Your task to perform on an android device: change timer sound Image 0: 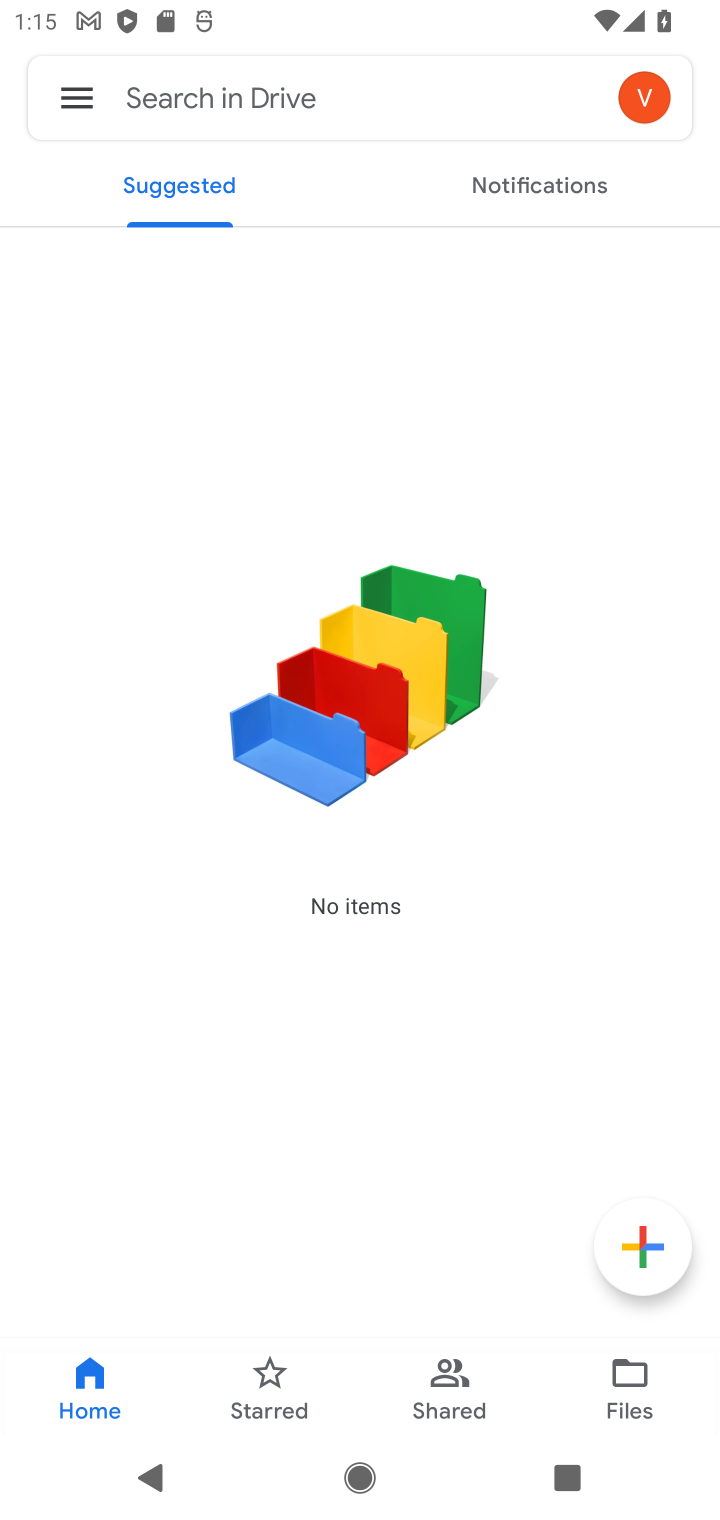
Step 0: press home button
Your task to perform on an android device: change timer sound Image 1: 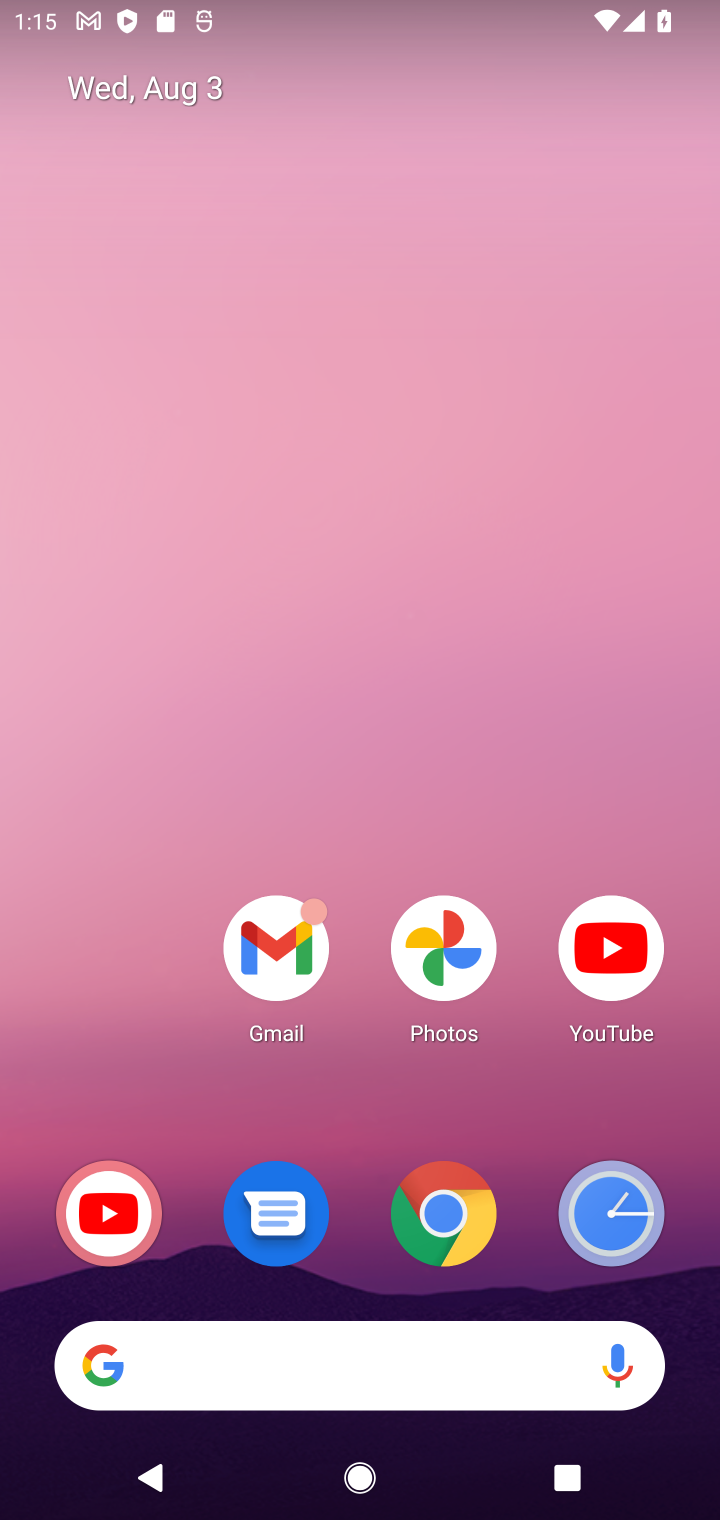
Step 1: drag from (294, 1311) to (626, 16)
Your task to perform on an android device: change timer sound Image 2: 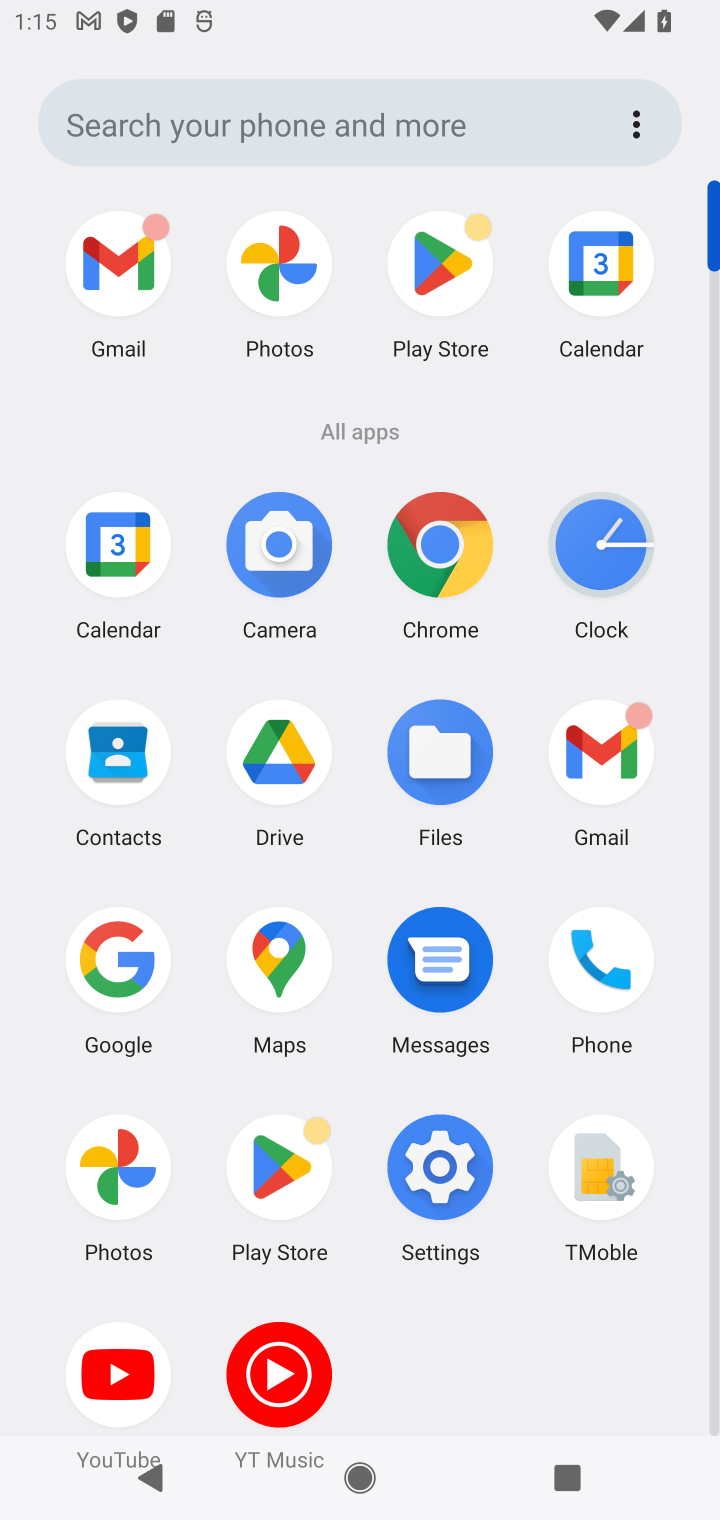
Step 2: click (589, 568)
Your task to perform on an android device: change timer sound Image 3: 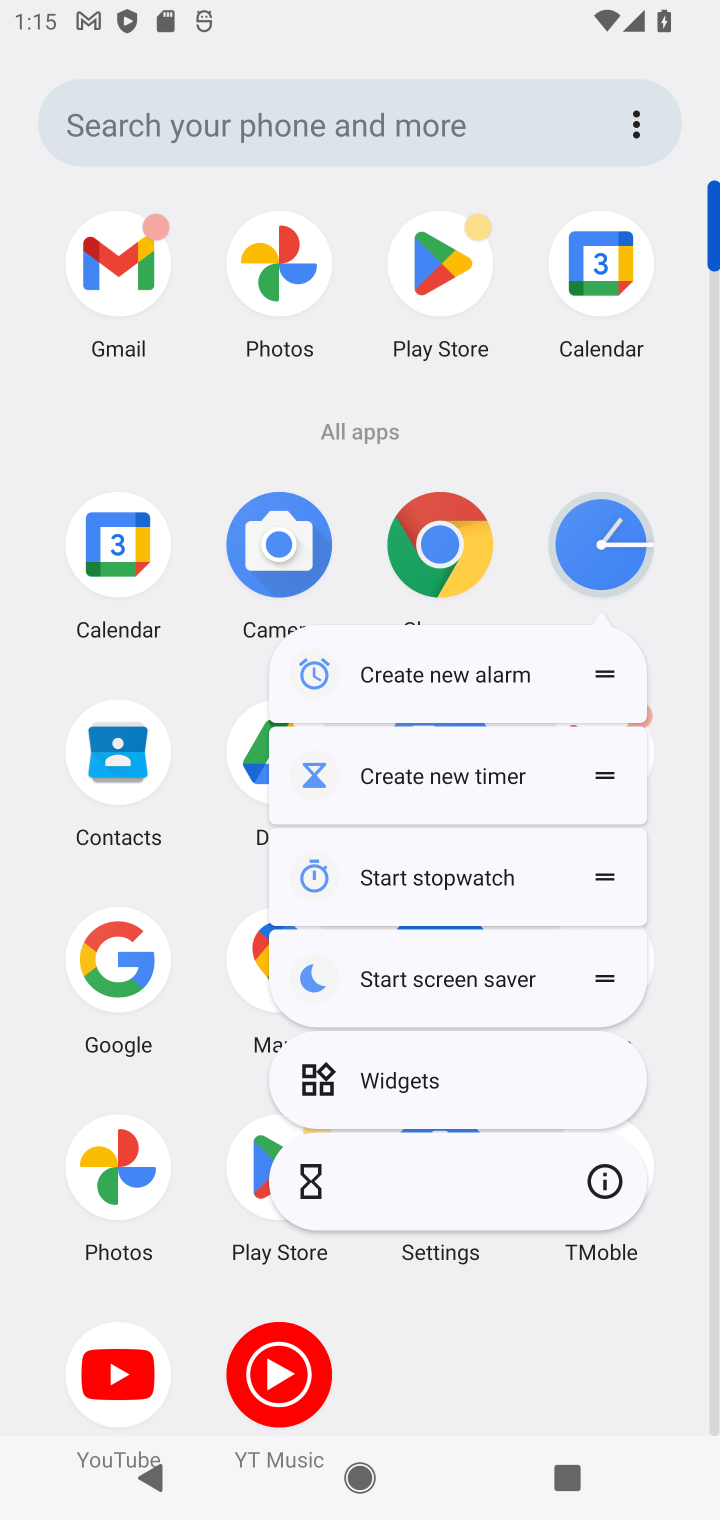
Step 3: click (576, 544)
Your task to perform on an android device: change timer sound Image 4: 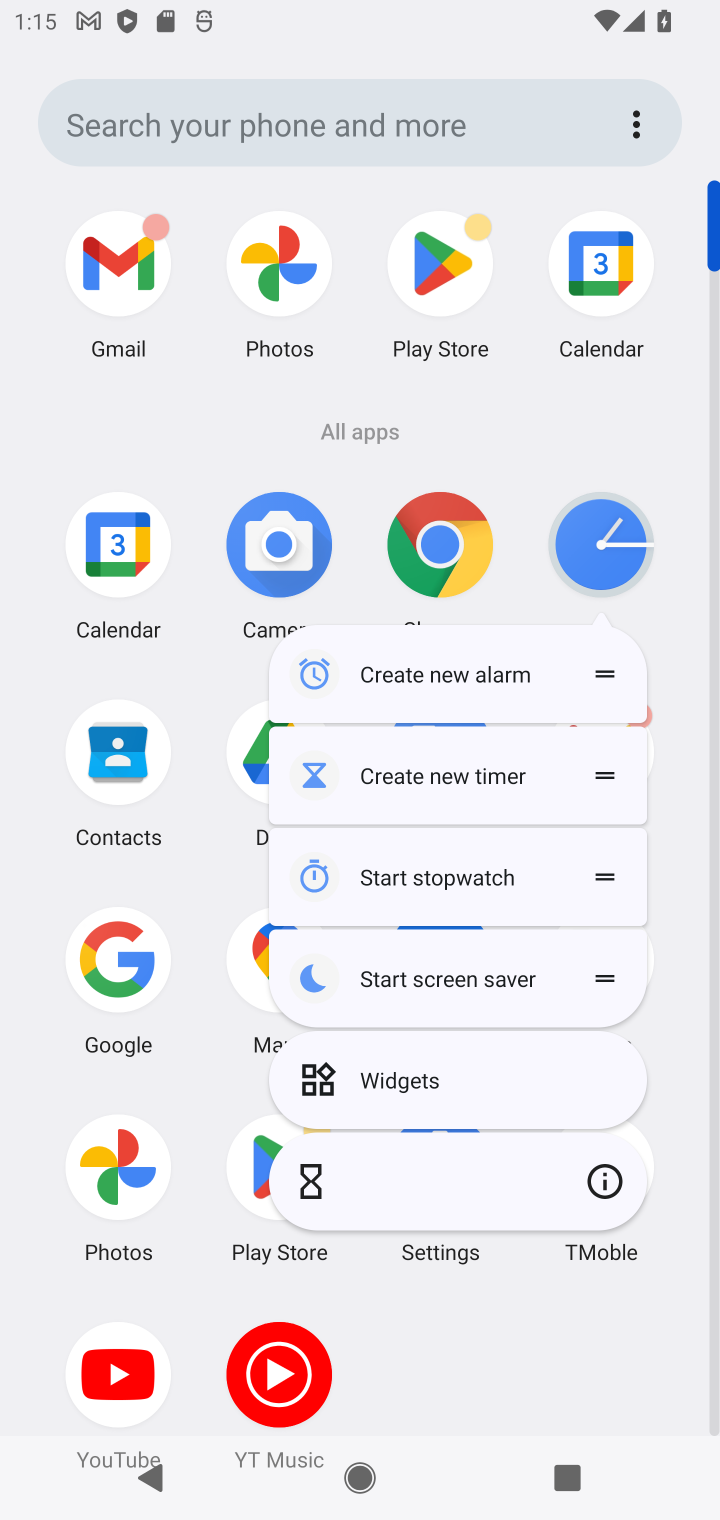
Step 4: click (598, 517)
Your task to perform on an android device: change timer sound Image 5: 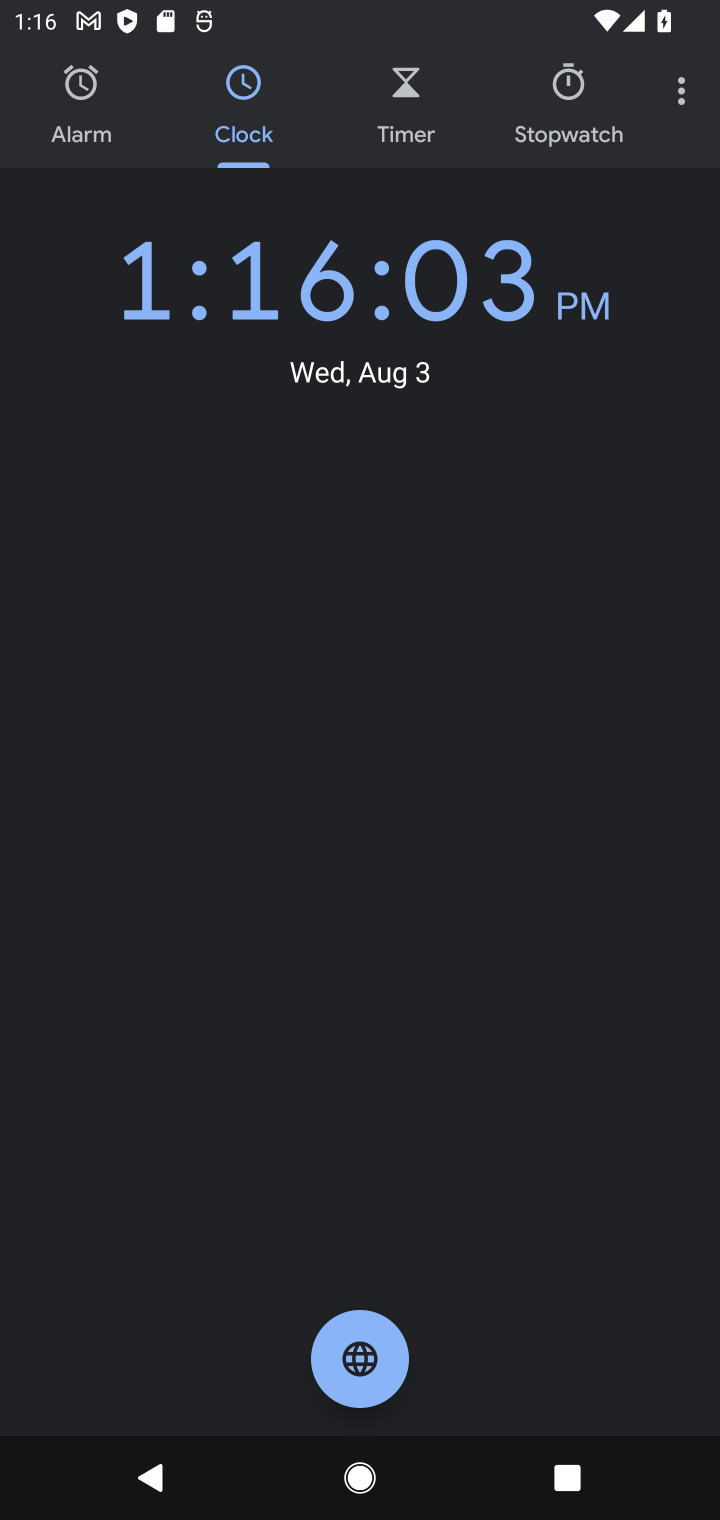
Step 5: click (407, 93)
Your task to perform on an android device: change timer sound Image 6: 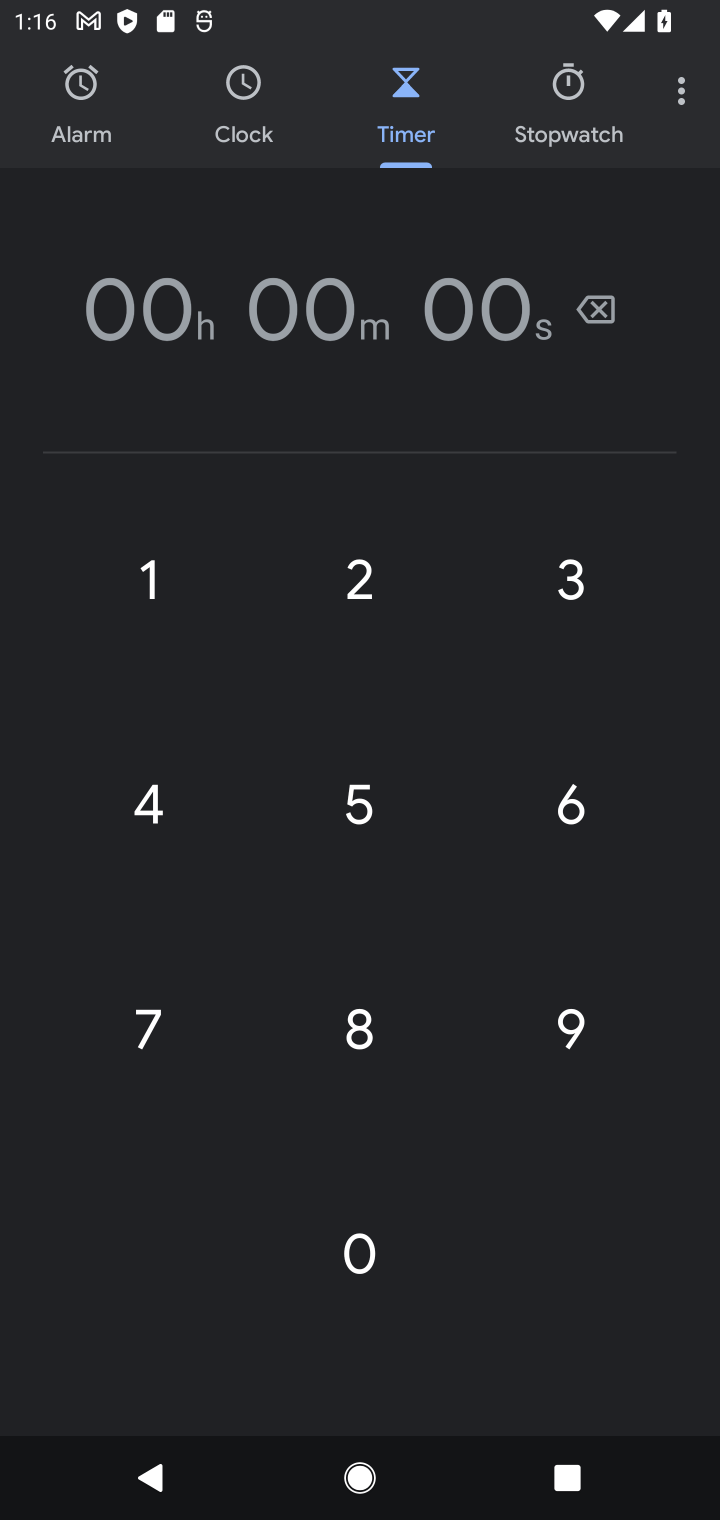
Step 6: click (364, 1021)
Your task to perform on an android device: change timer sound Image 7: 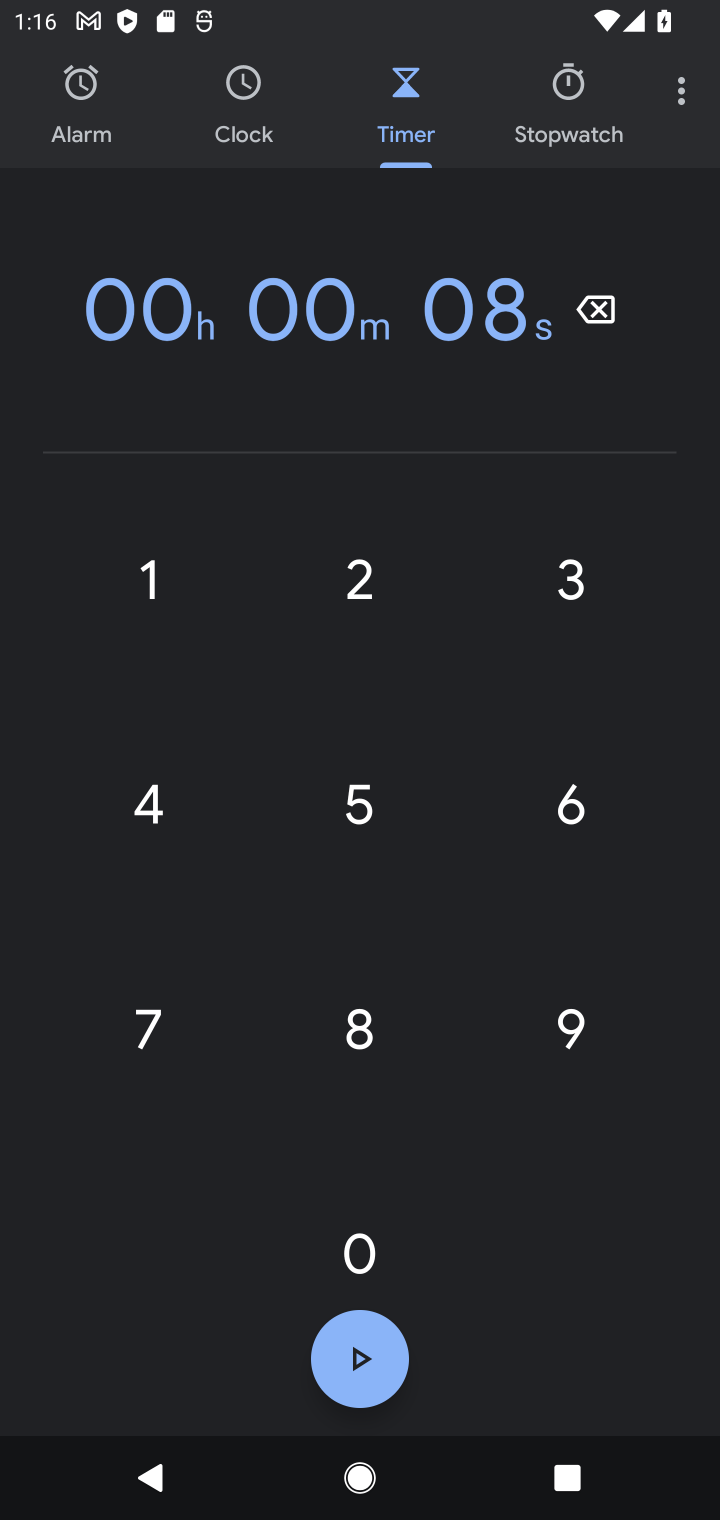
Step 7: click (576, 1035)
Your task to perform on an android device: change timer sound Image 8: 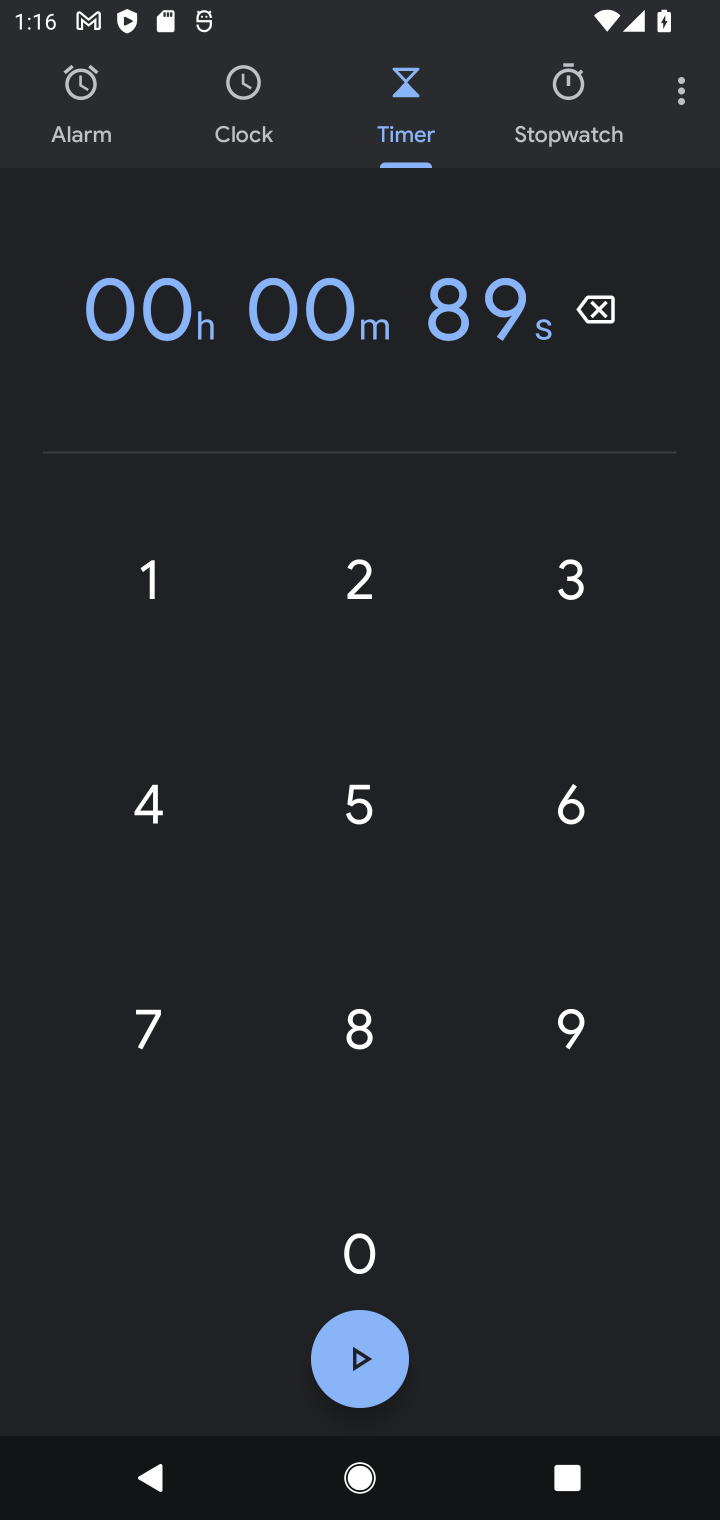
Step 8: click (366, 1374)
Your task to perform on an android device: change timer sound Image 9: 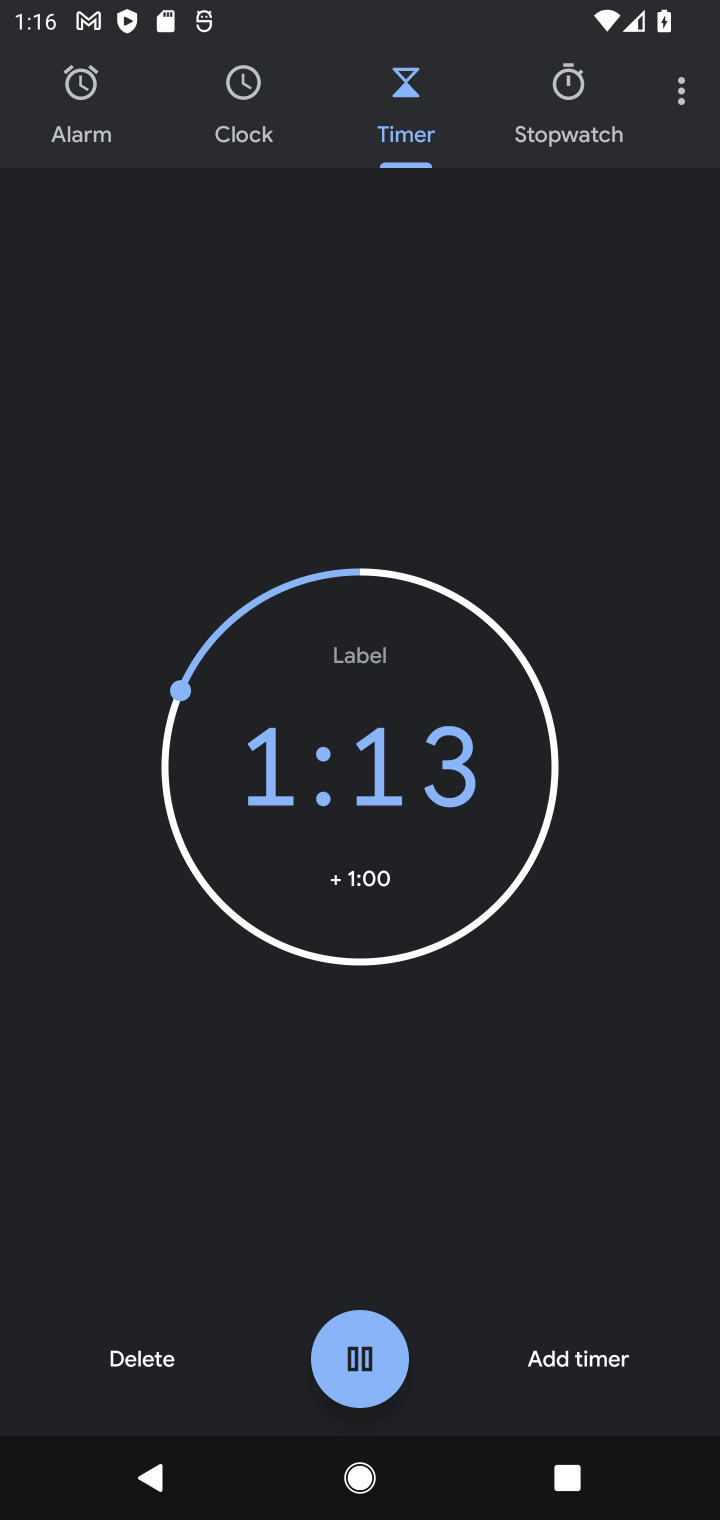
Step 9: click (692, 87)
Your task to perform on an android device: change timer sound Image 10: 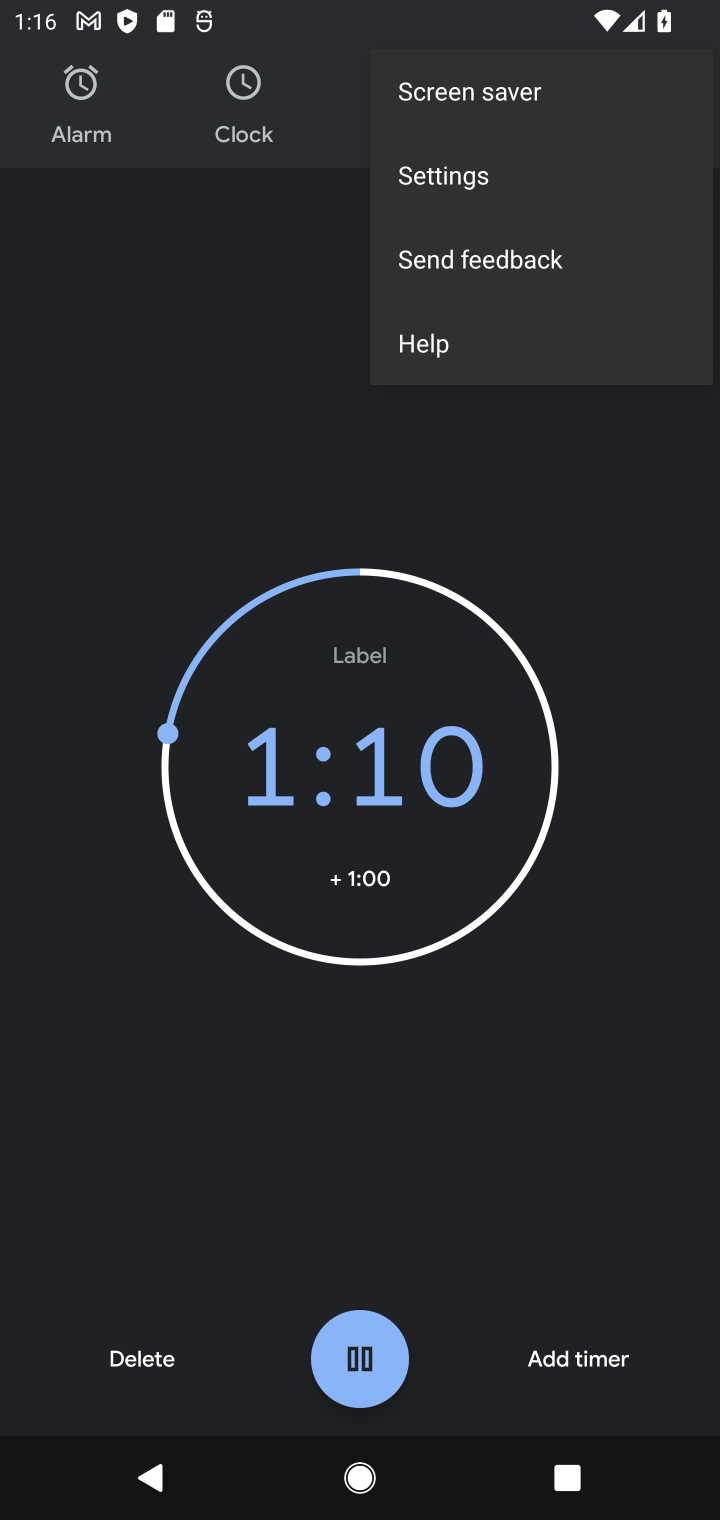
Step 10: click (429, 180)
Your task to perform on an android device: change timer sound Image 11: 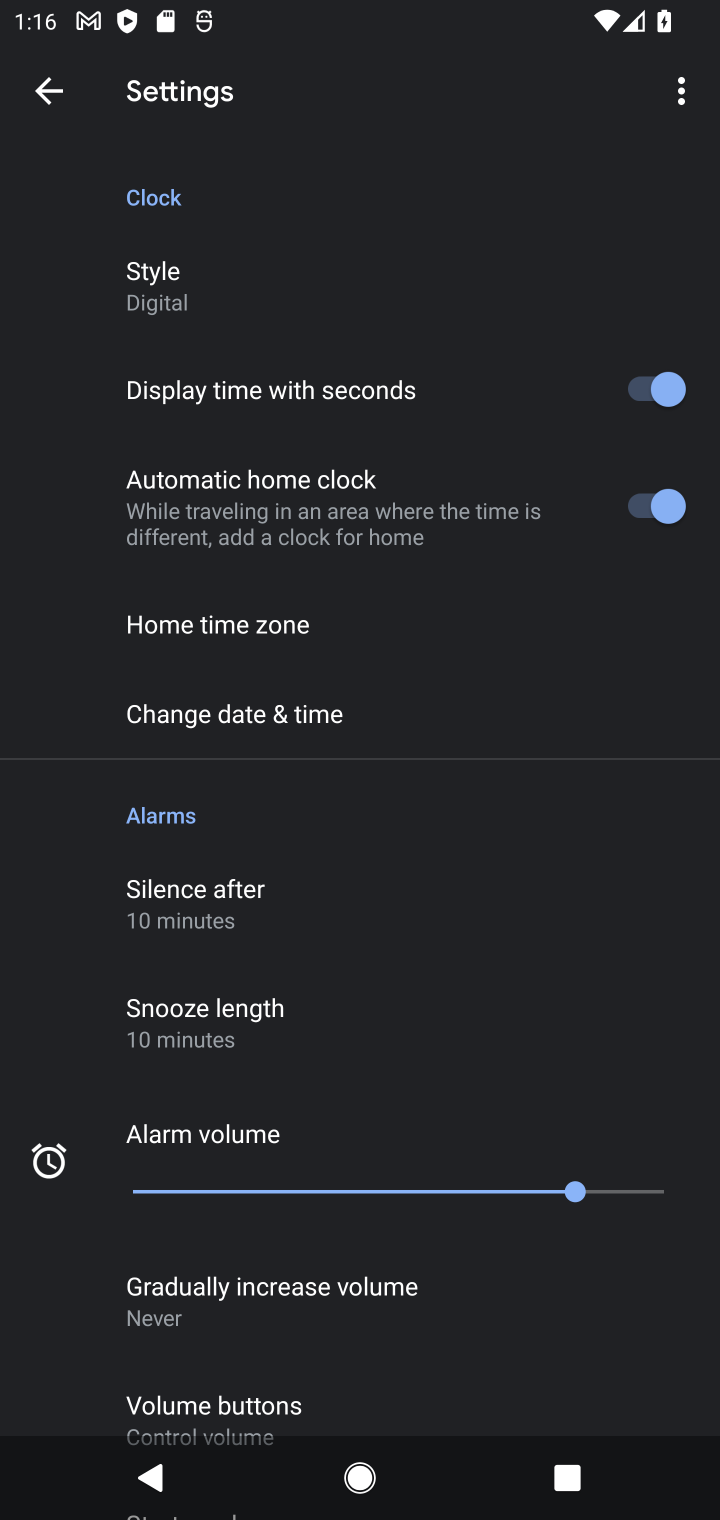
Step 11: drag from (236, 1108) to (387, 160)
Your task to perform on an android device: change timer sound Image 12: 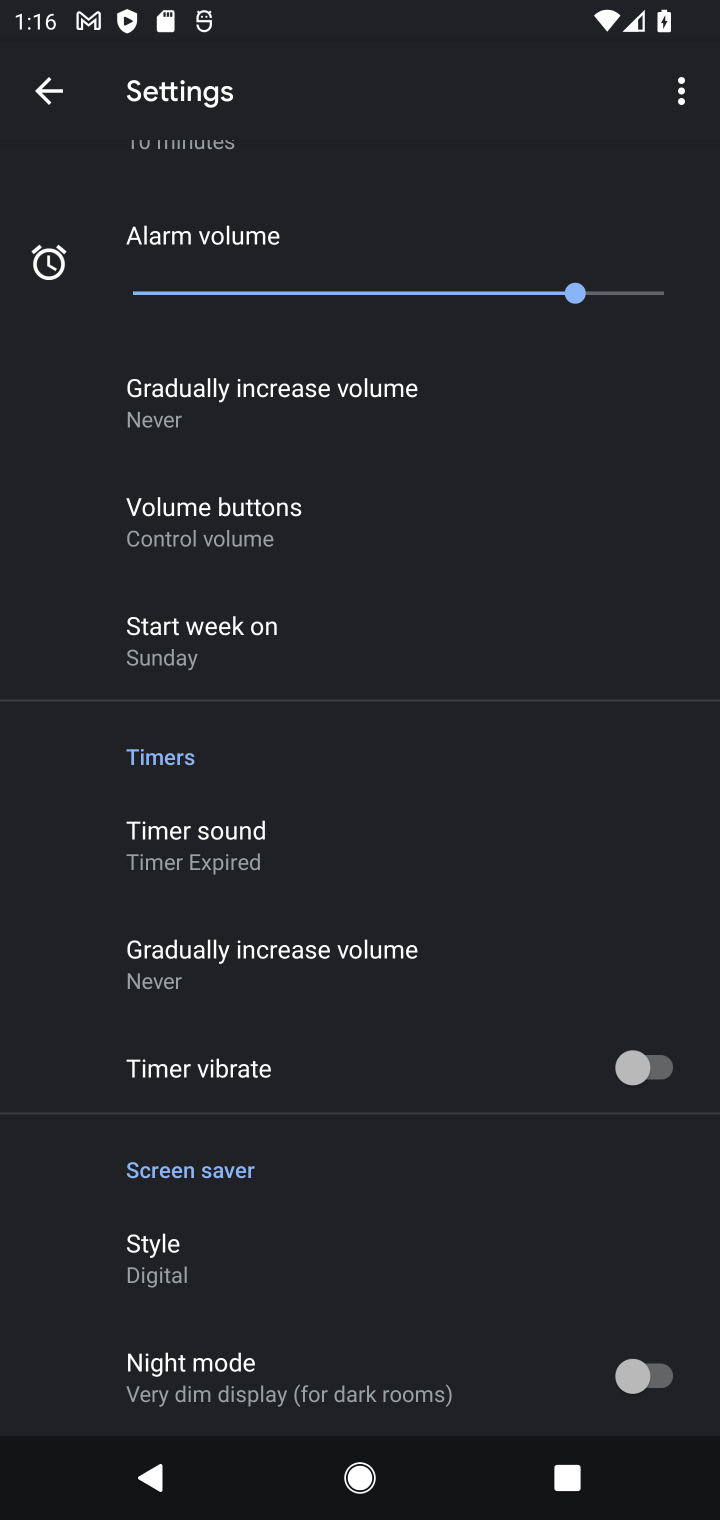
Step 12: click (216, 846)
Your task to perform on an android device: change timer sound Image 13: 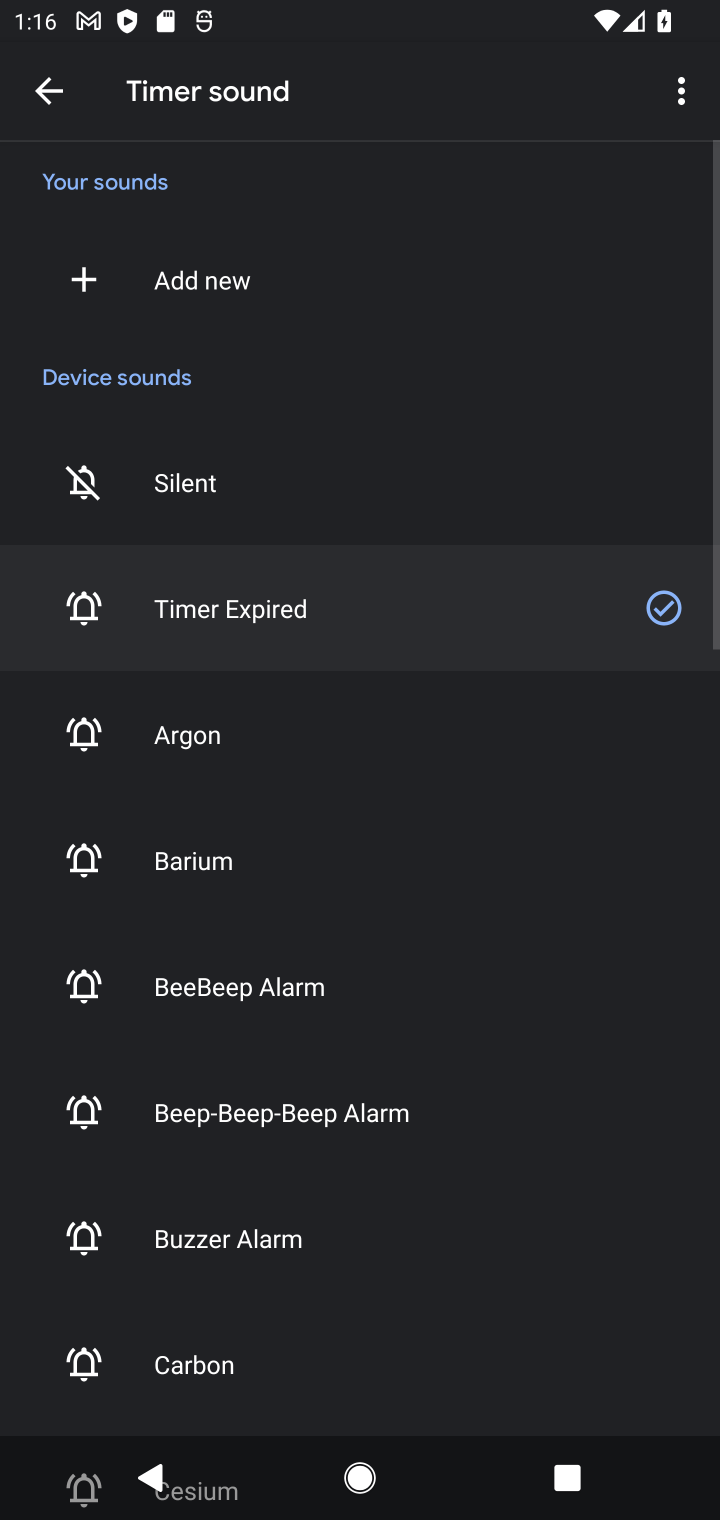
Step 13: click (156, 736)
Your task to perform on an android device: change timer sound Image 14: 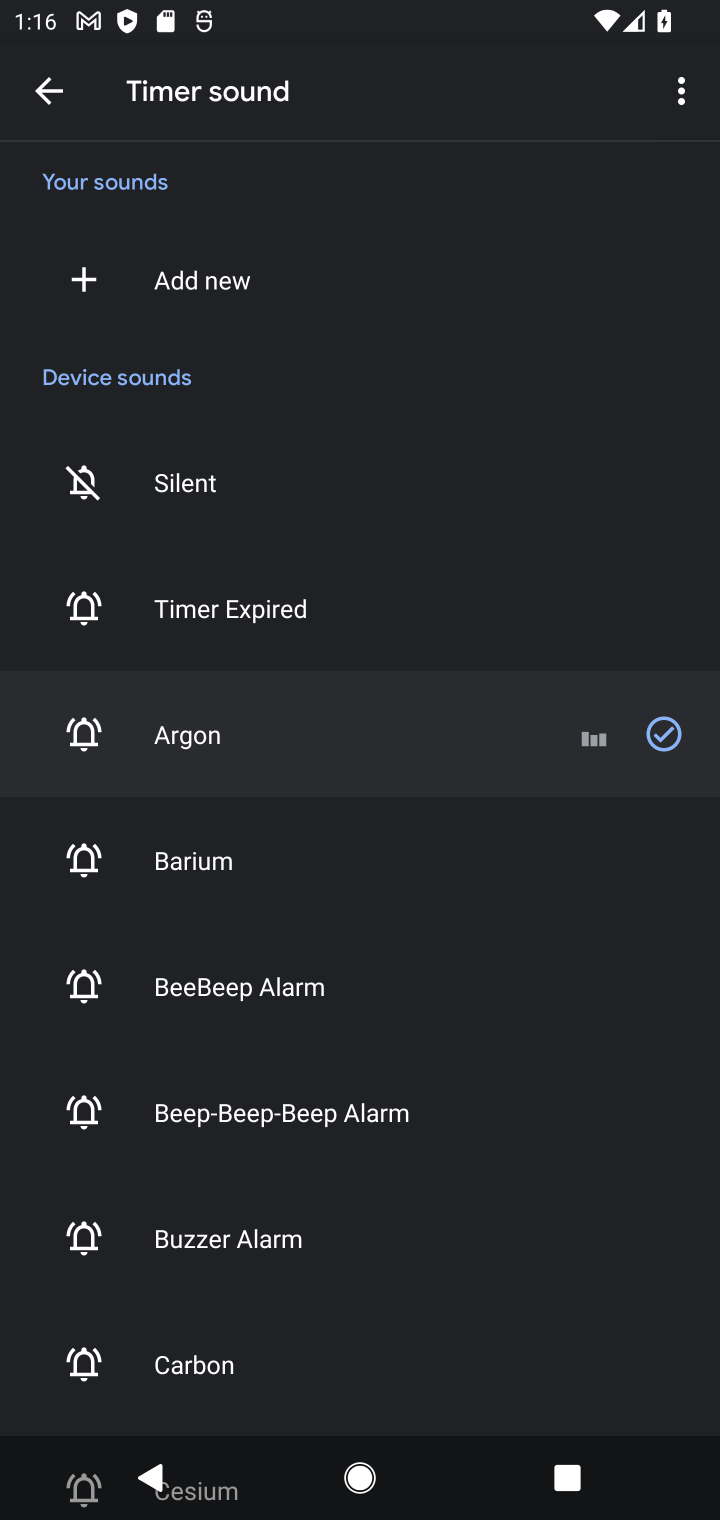
Step 14: task complete